Your task to perform on an android device: Open the Play Movies app and select the watchlist tab. Image 0: 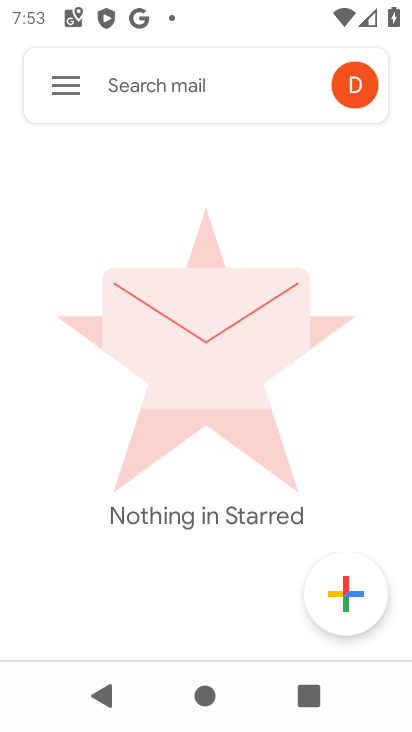
Step 0: press home button
Your task to perform on an android device: Open the Play Movies app and select the watchlist tab. Image 1: 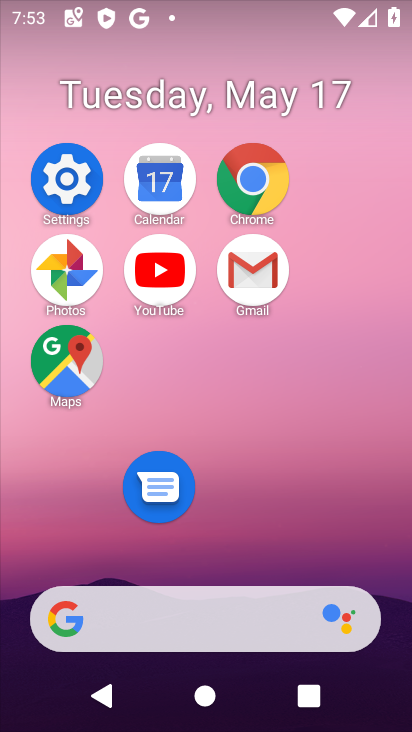
Step 1: drag from (296, 526) to (316, 150)
Your task to perform on an android device: Open the Play Movies app and select the watchlist tab. Image 2: 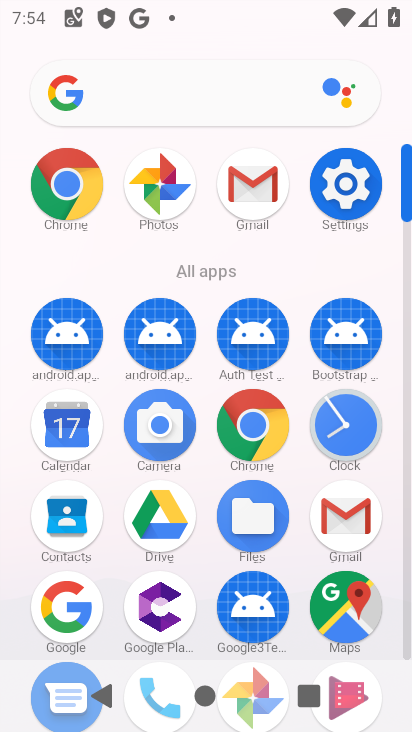
Step 2: drag from (244, 492) to (244, 186)
Your task to perform on an android device: Open the Play Movies app and select the watchlist tab. Image 3: 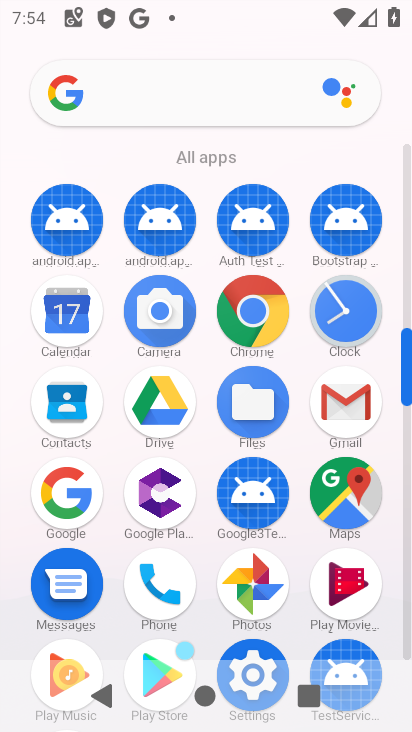
Step 3: drag from (225, 532) to (237, 271)
Your task to perform on an android device: Open the Play Movies app and select the watchlist tab. Image 4: 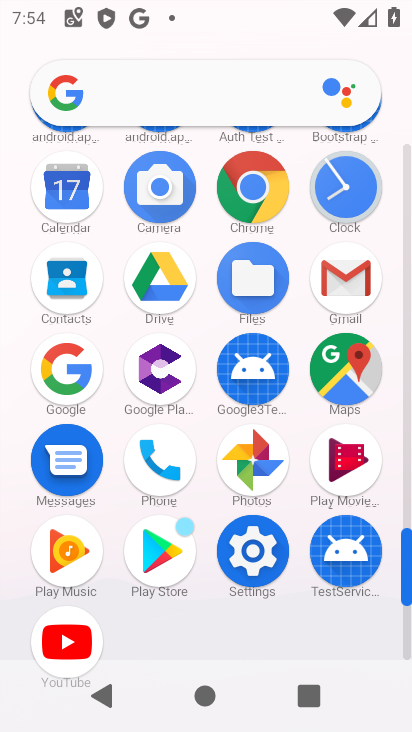
Step 4: click (360, 472)
Your task to perform on an android device: Open the Play Movies app and select the watchlist tab. Image 5: 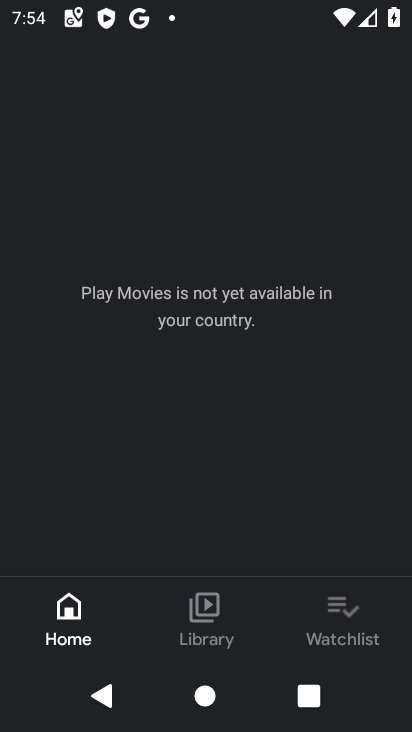
Step 5: click (323, 623)
Your task to perform on an android device: Open the Play Movies app and select the watchlist tab. Image 6: 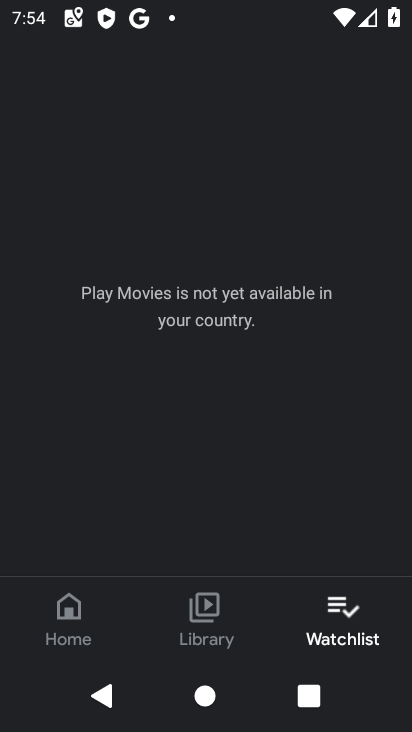
Step 6: task complete